Your task to perform on an android device: toggle javascript in the chrome app Image 0: 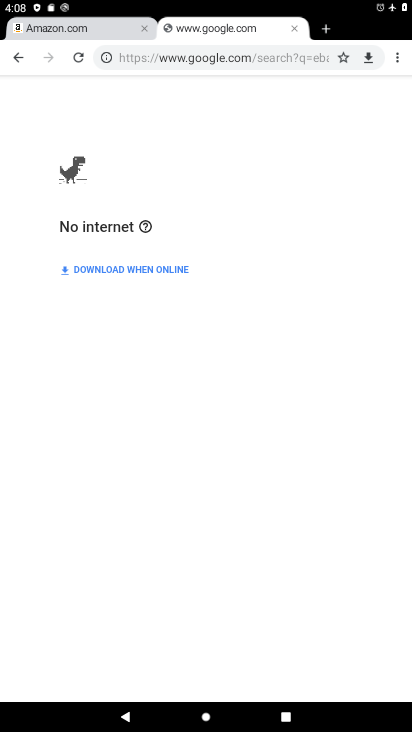
Step 0: drag from (398, 63) to (267, 405)
Your task to perform on an android device: toggle javascript in the chrome app Image 1: 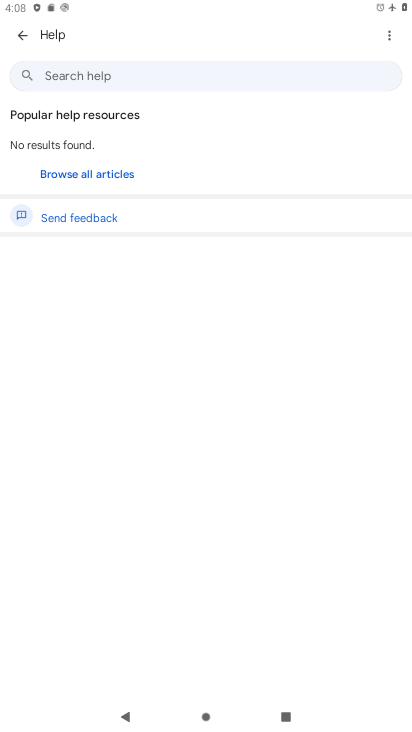
Step 1: click (31, 37)
Your task to perform on an android device: toggle javascript in the chrome app Image 2: 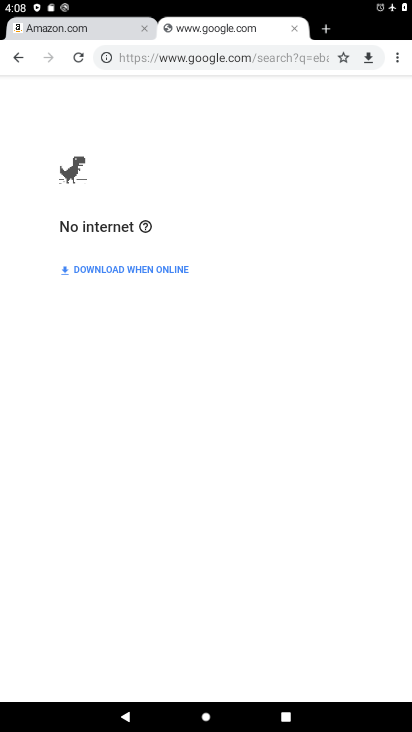
Step 2: click (393, 54)
Your task to perform on an android device: toggle javascript in the chrome app Image 3: 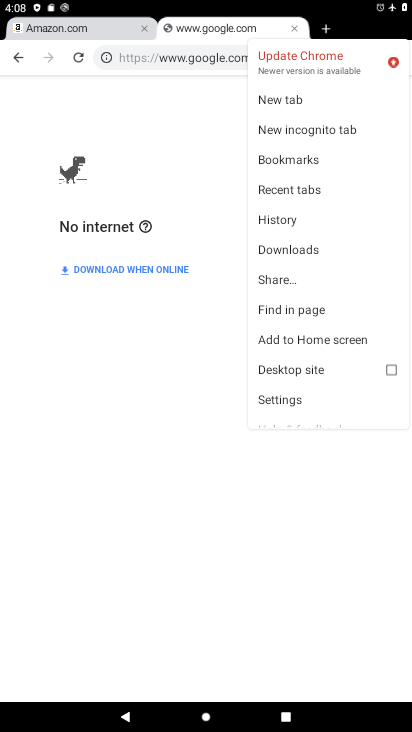
Step 3: click (276, 398)
Your task to perform on an android device: toggle javascript in the chrome app Image 4: 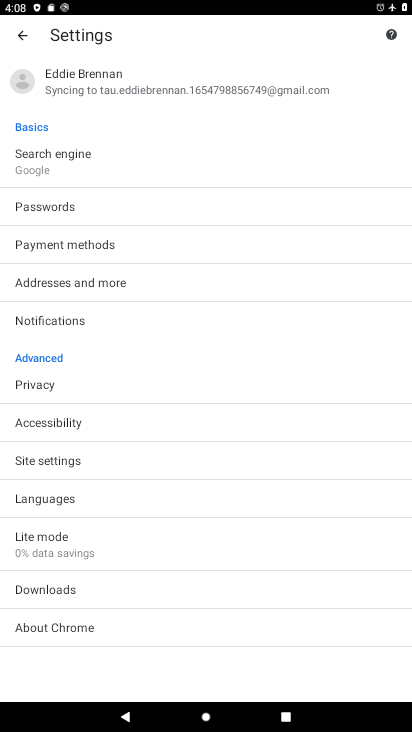
Step 4: click (79, 462)
Your task to perform on an android device: toggle javascript in the chrome app Image 5: 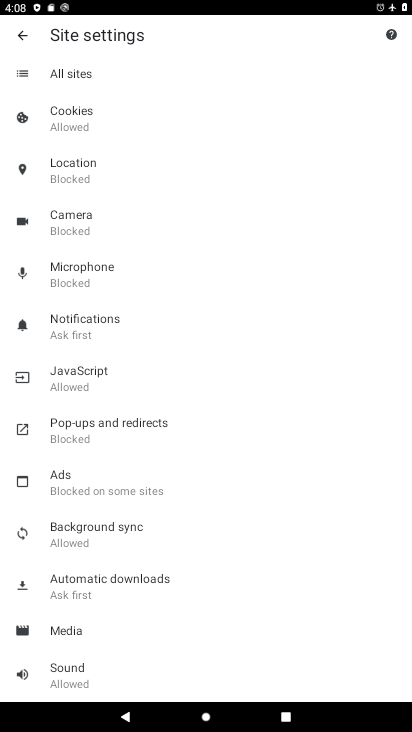
Step 5: click (76, 376)
Your task to perform on an android device: toggle javascript in the chrome app Image 6: 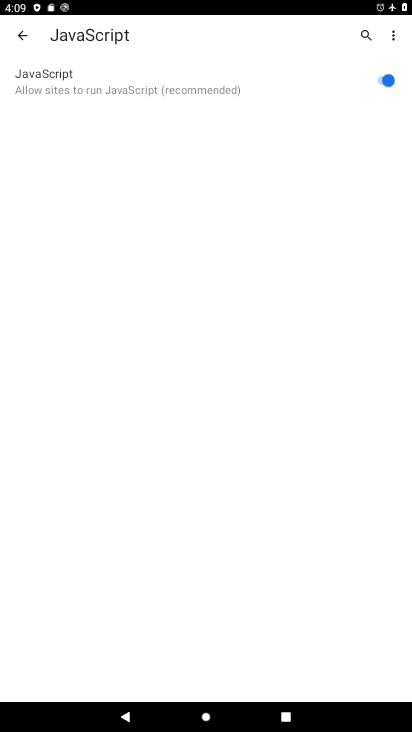
Step 6: click (387, 74)
Your task to perform on an android device: toggle javascript in the chrome app Image 7: 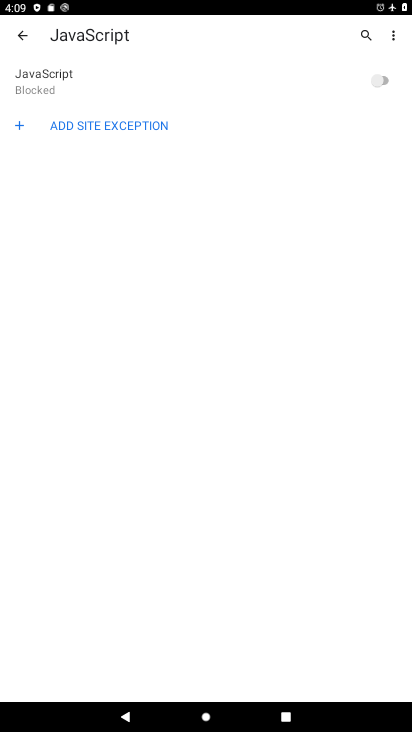
Step 7: task complete